Your task to perform on an android device: see tabs open on other devices in the chrome app Image 0: 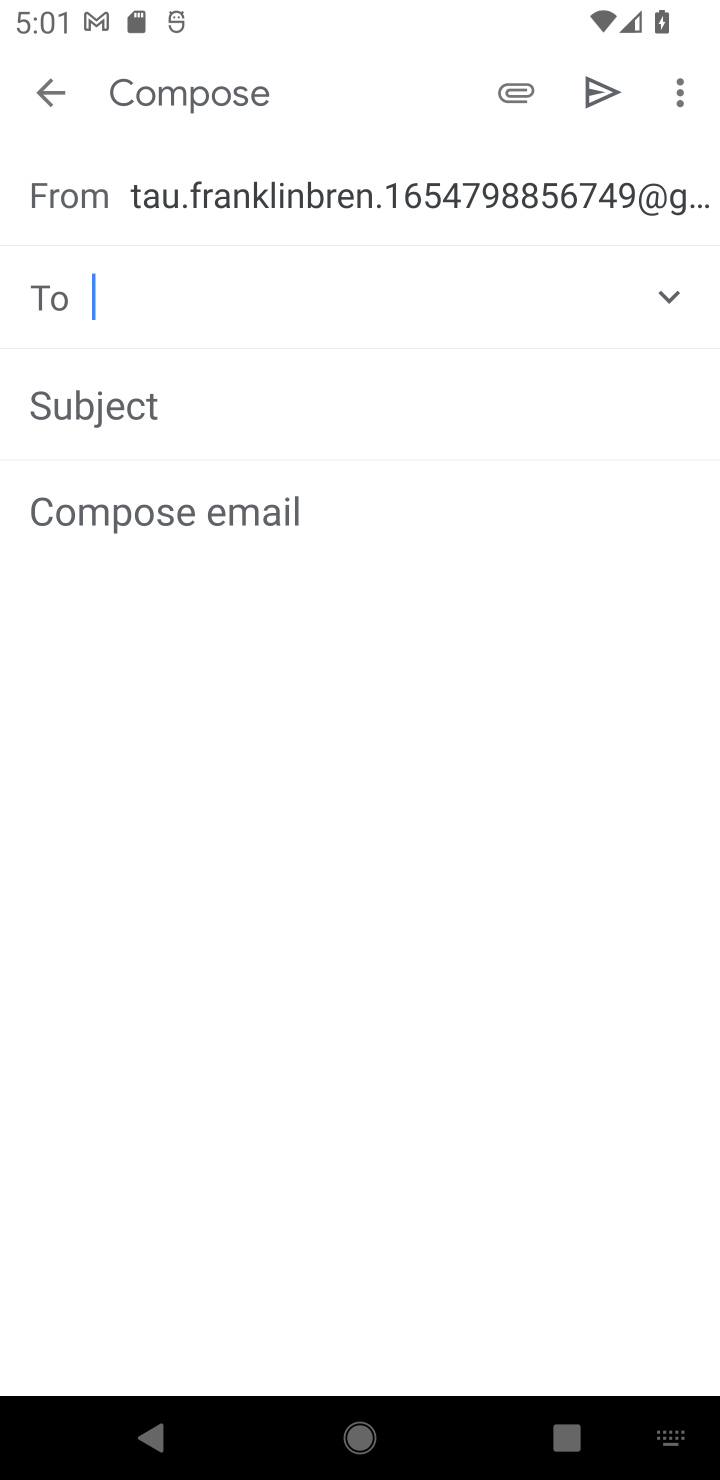
Step 0: press home button
Your task to perform on an android device: see tabs open on other devices in the chrome app Image 1: 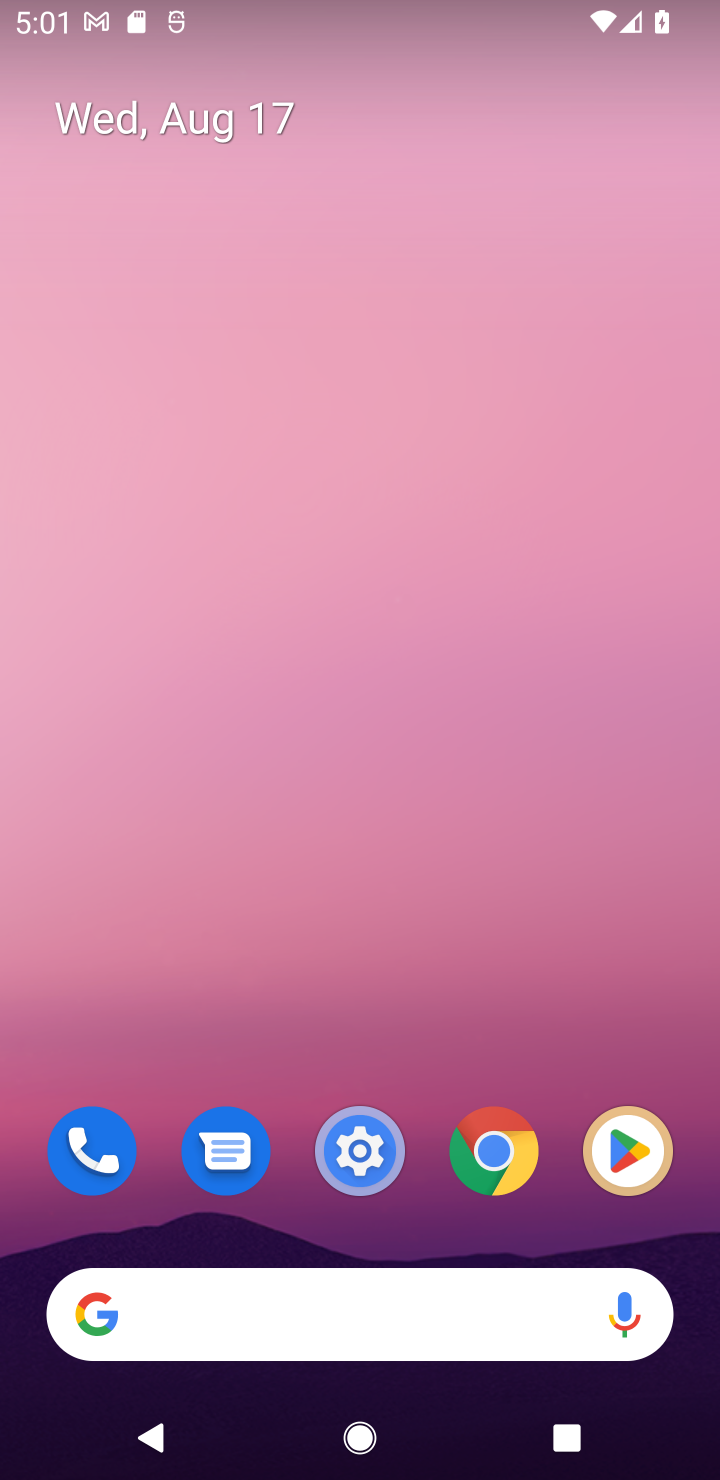
Step 1: click (500, 1158)
Your task to perform on an android device: see tabs open on other devices in the chrome app Image 2: 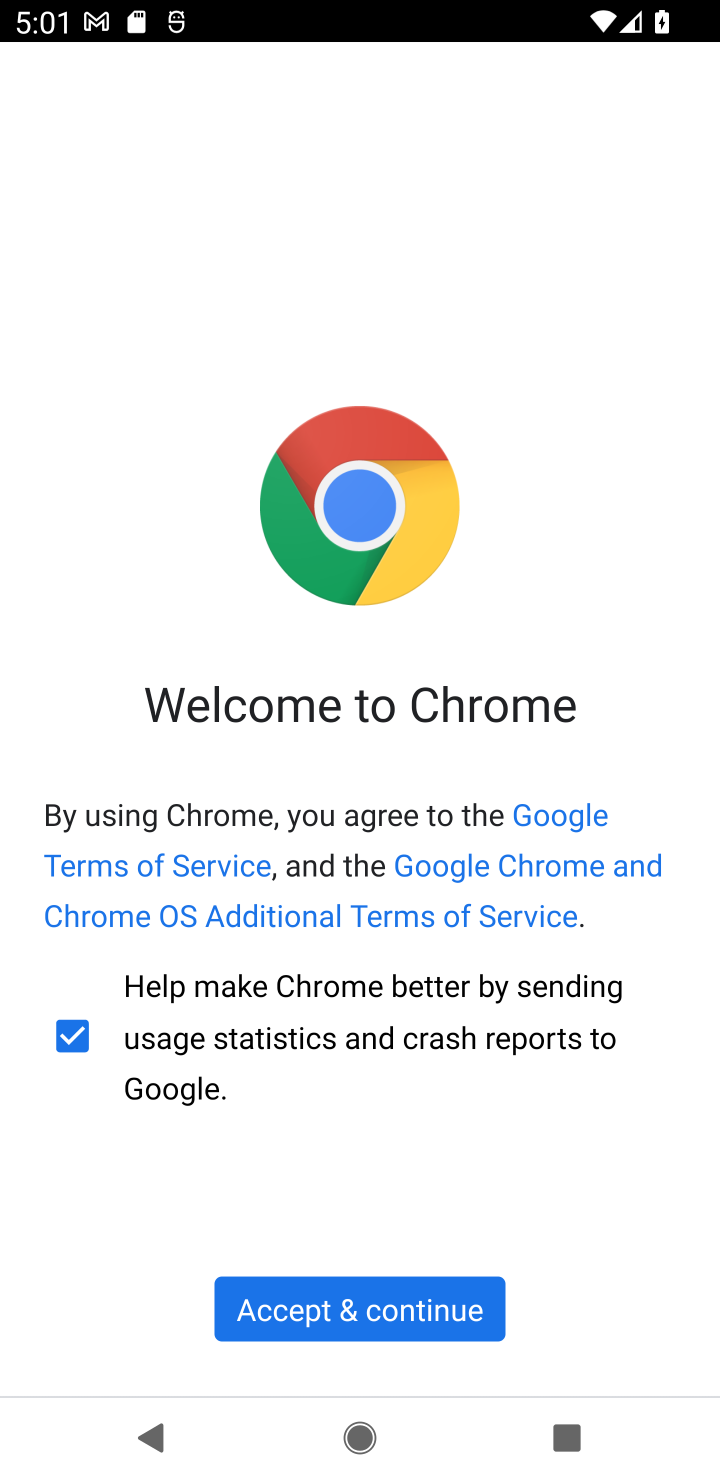
Step 2: click (351, 1307)
Your task to perform on an android device: see tabs open on other devices in the chrome app Image 3: 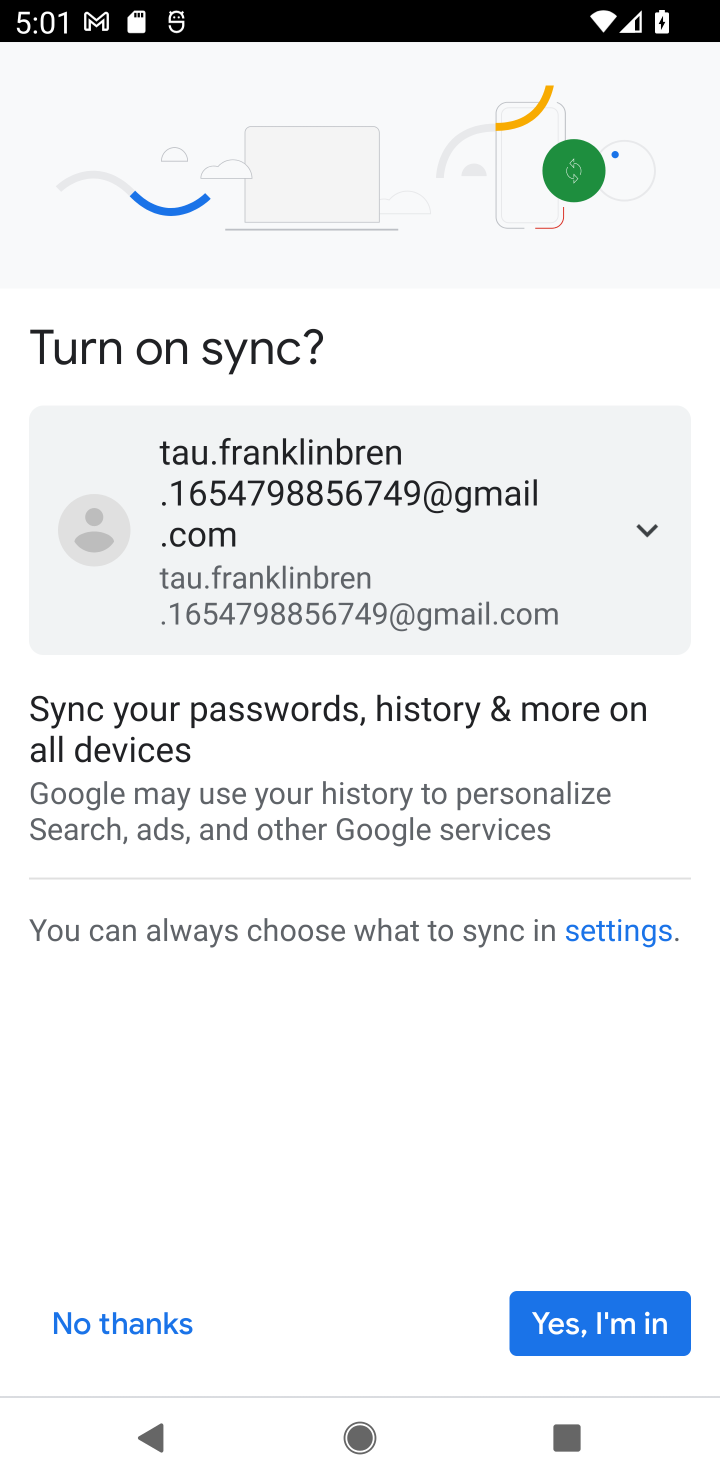
Step 3: click (636, 1330)
Your task to perform on an android device: see tabs open on other devices in the chrome app Image 4: 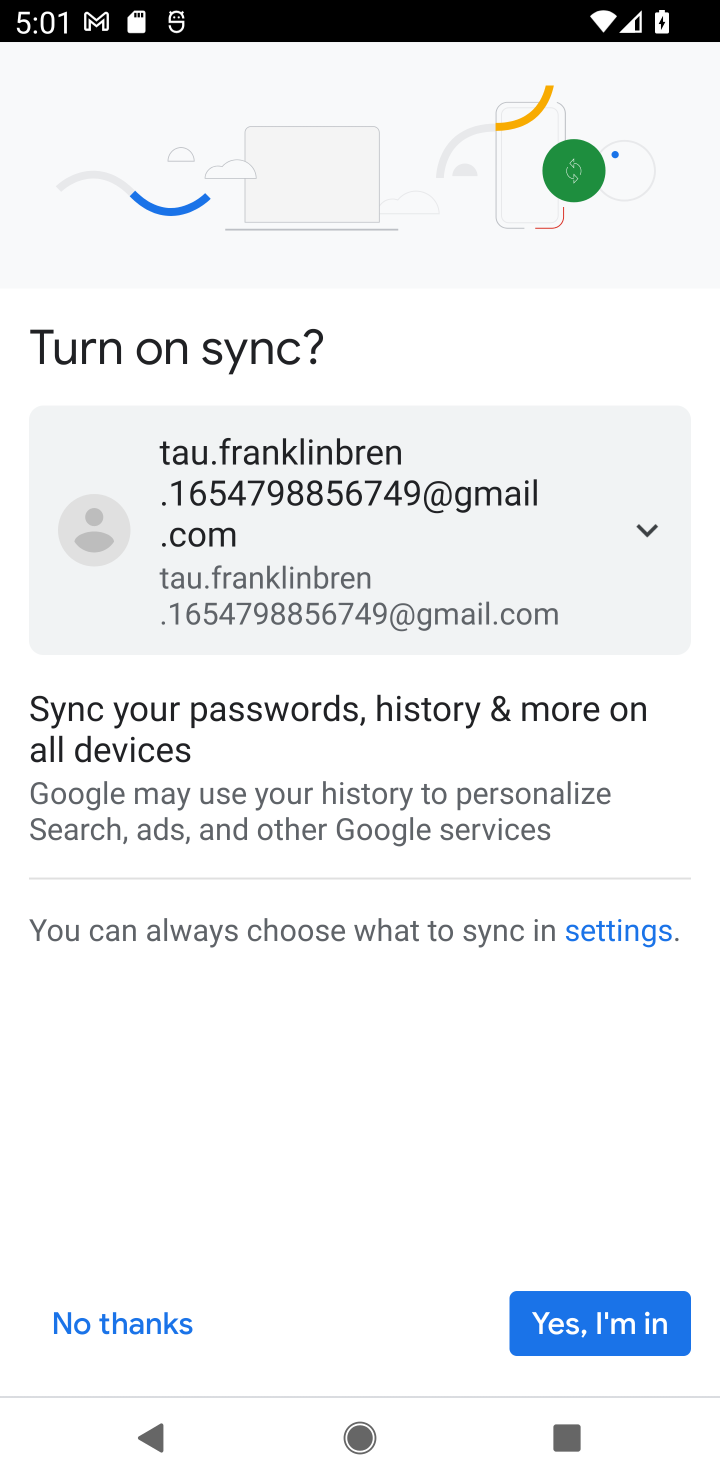
Step 4: click (593, 1324)
Your task to perform on an android device: see tabs open on other devices in the chrome app Image 5: 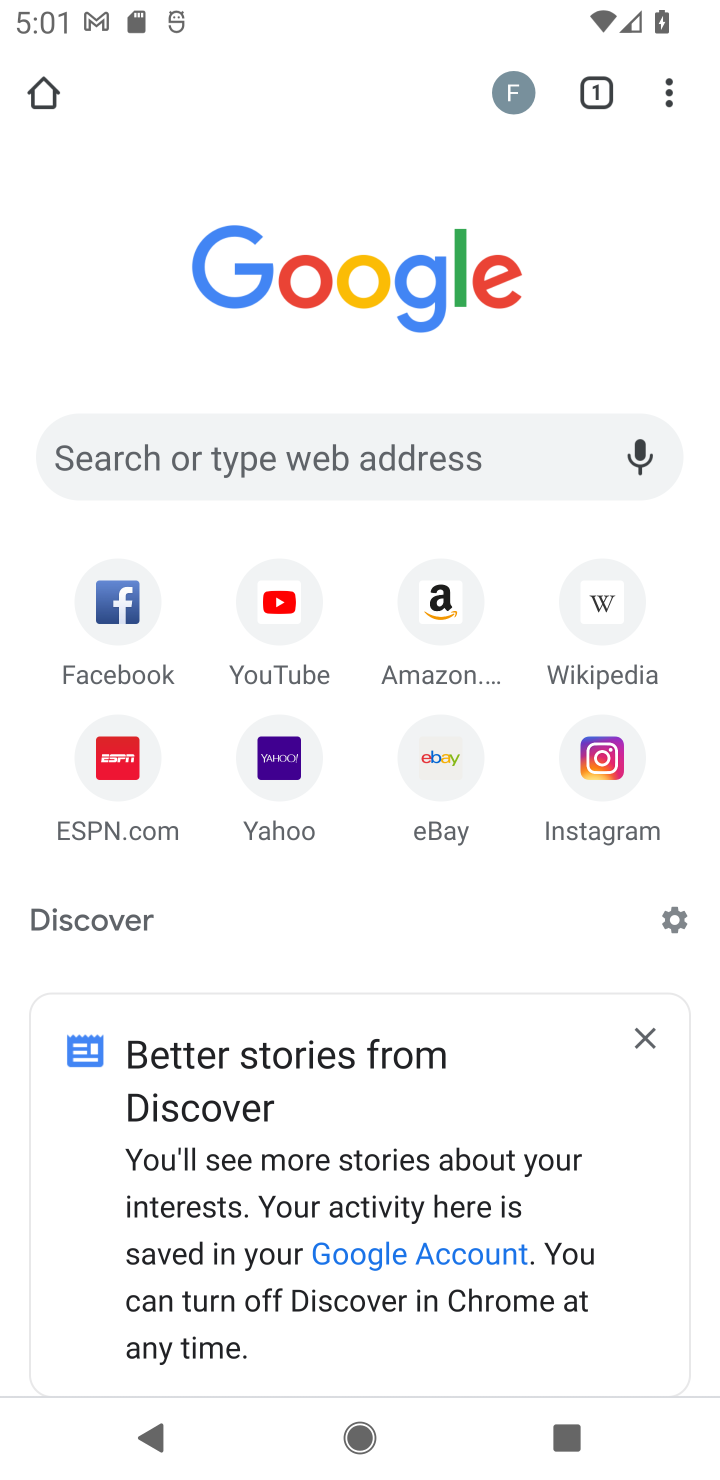
Step 5: click (662, 102)
Your task to perform on an android device: see tabs open on other devices in the chrome app Image 6: 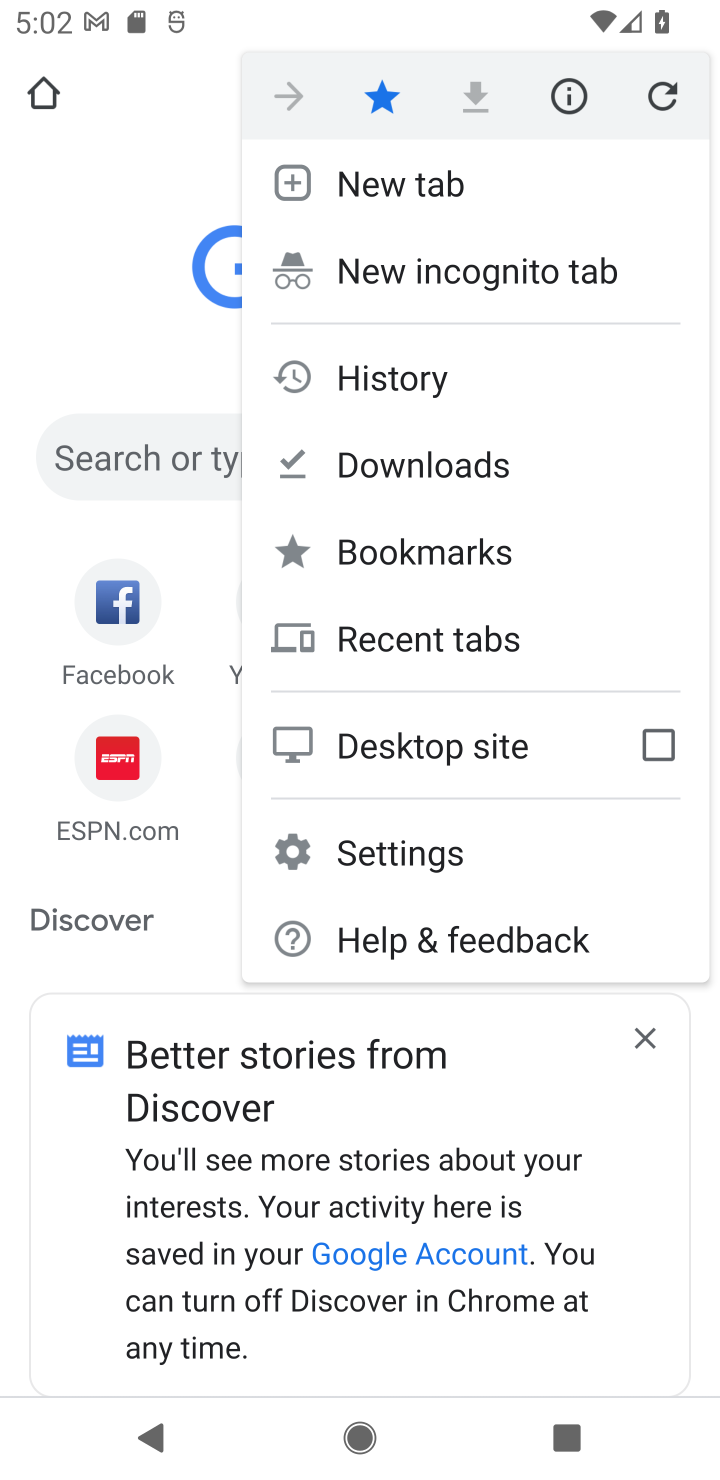
Step 6: click (388, 632)
Your task to perform on an android device: see tabs open on other devices in the chrome app Image 7: 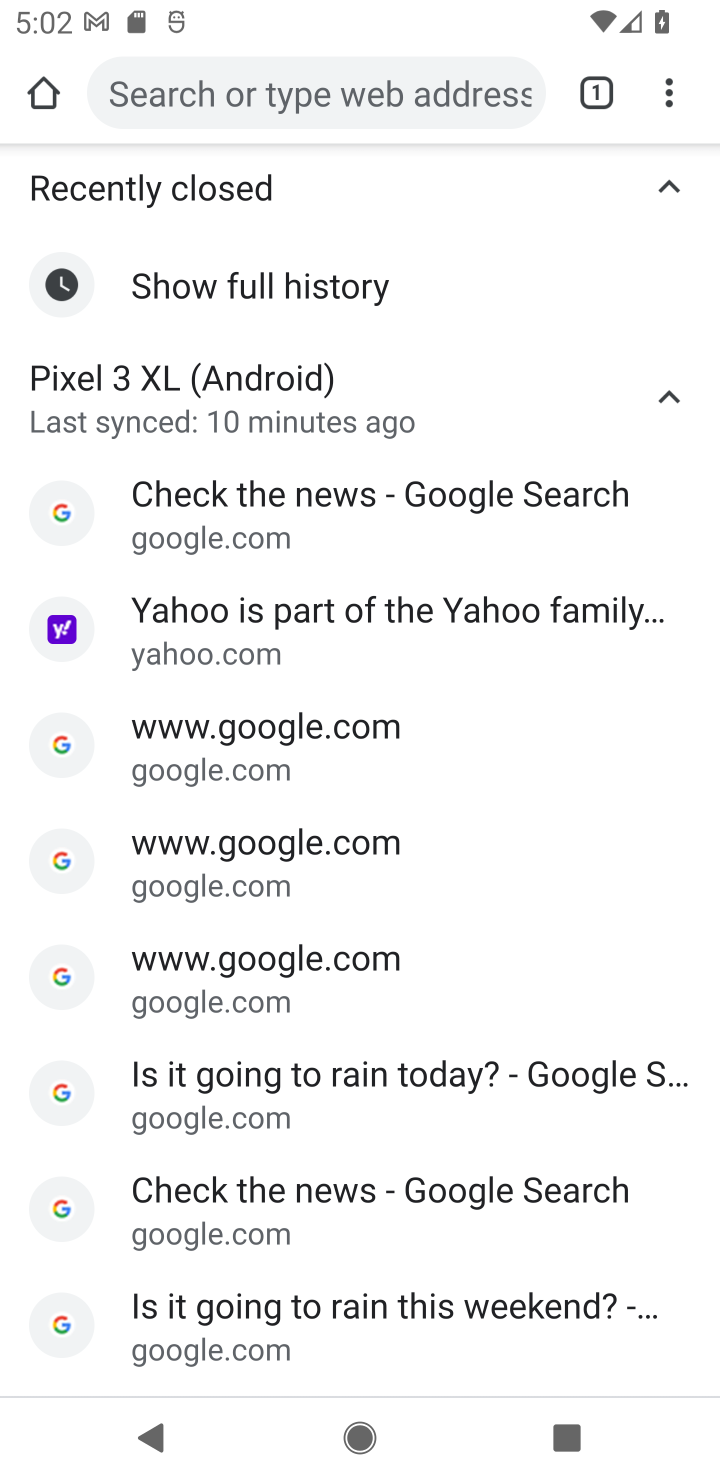
Step 7: task complete